Your task to perform on an android device: check out phone information Image 0: 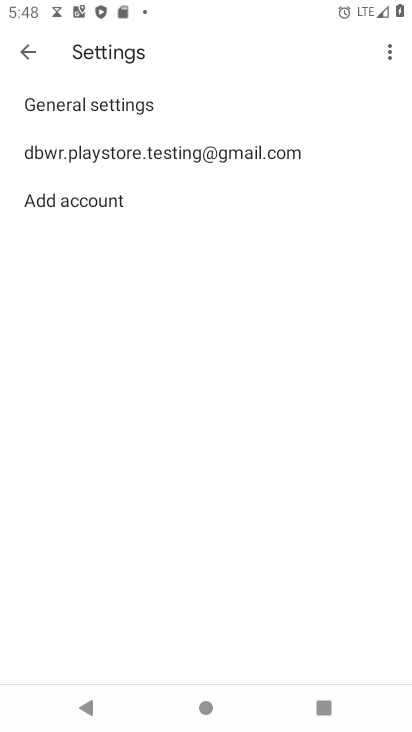
Step 0: press home button
Your task to perform on an android device: check out phone information Image 1: 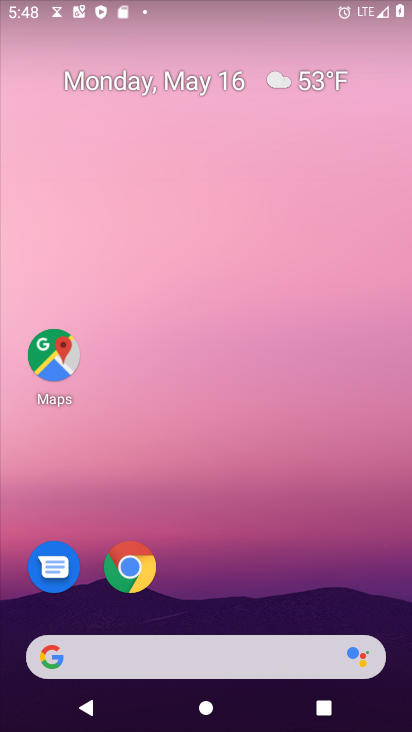
Step 1: drag from (197, 515) to (351, 4)
Your task to perform on an android device: check out phone information Image 2: 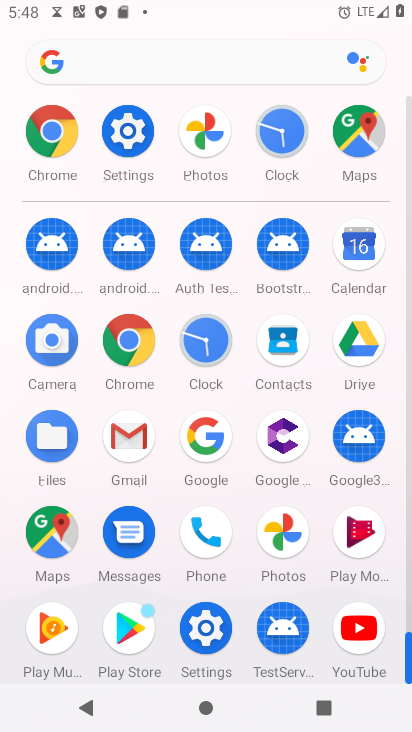
Step 2: click (128, 148)
Your task to perform on an android device: check out phone information Image 3: 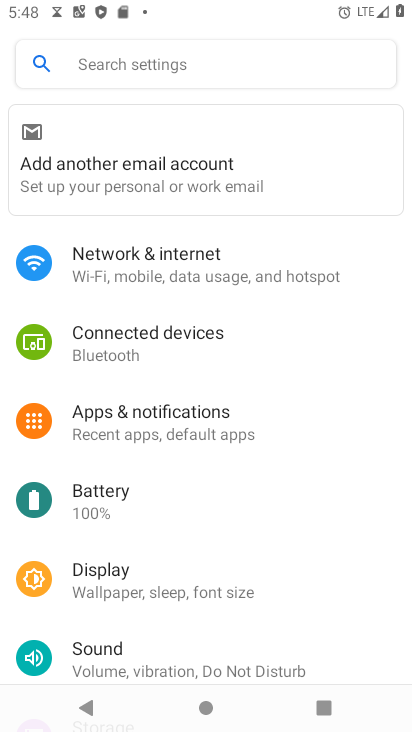
Step 3: drag from (271, 590) to (264, 132)
Your task to perform on an android device: check out phone information Image 4: 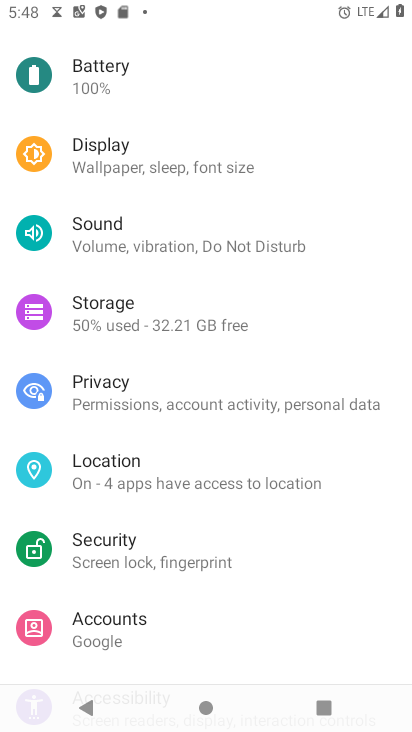
Step 4: drag from (250, 621) to (221, 161)
Your task to perform on an android device: check out phone information Image 5: 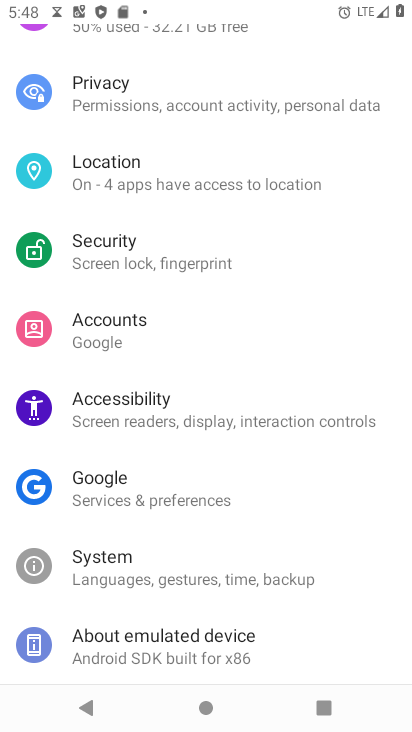
Step 5: click (190, 652)
Your task to perform on an android device: check out phone information Image 6: 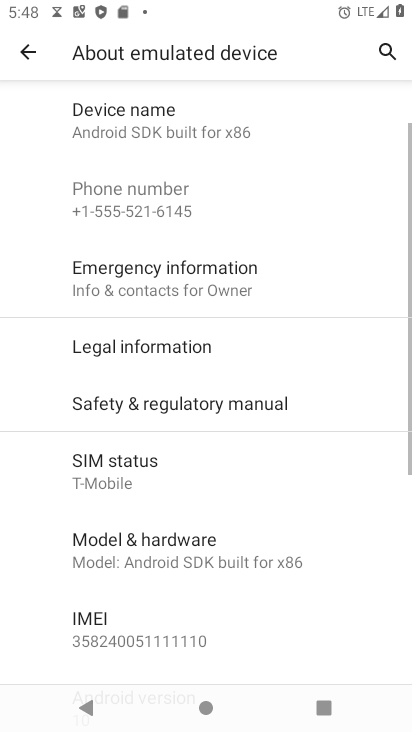
Step 6: task complete